Your task to perform on an android device: allow cookies in the chrome app Image 0: 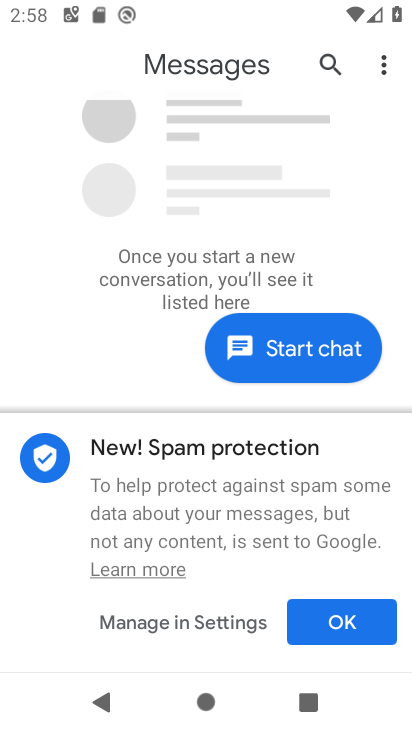
Step 0: press home button
Your task to perform on an android device: allow cookies in the chrome app Image 1: 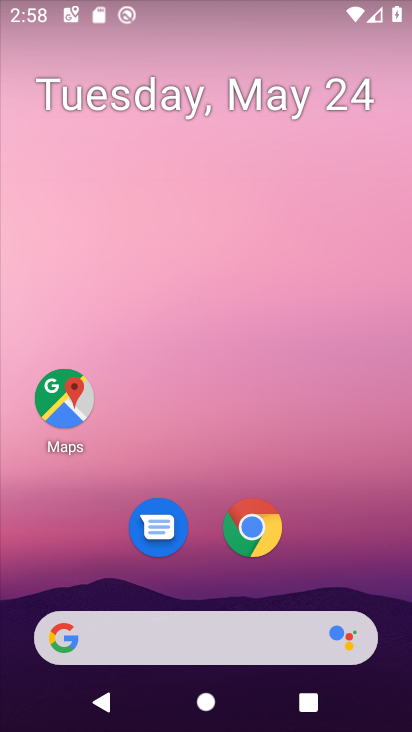
Step 1: click (250, 532)
Your task to perform on an android device: allow cookies in the chrome app Image 2: 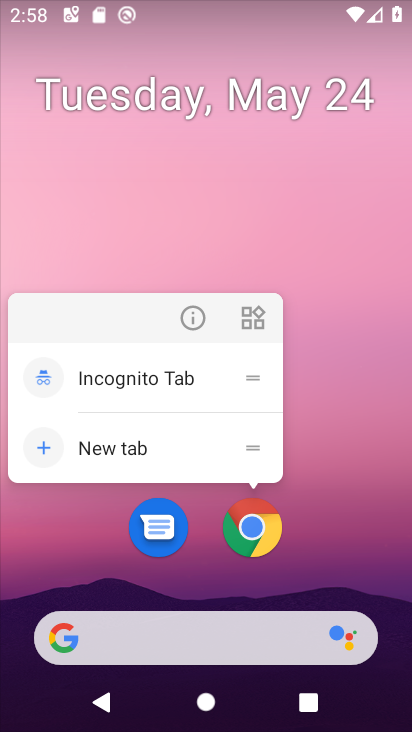
Step 2: click (250, 532)
Your task to perform on an android device: allow cookies in the chrome app Image 3: 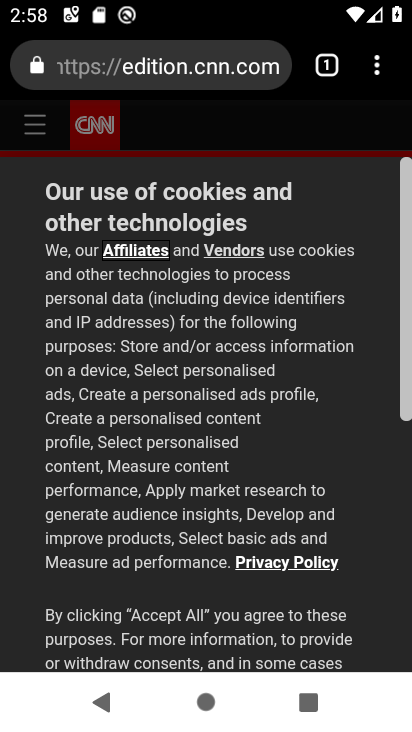
Step 3: click (377, 67)
Your task to perform on an android device: allow cookies in the chrome app Image 4: 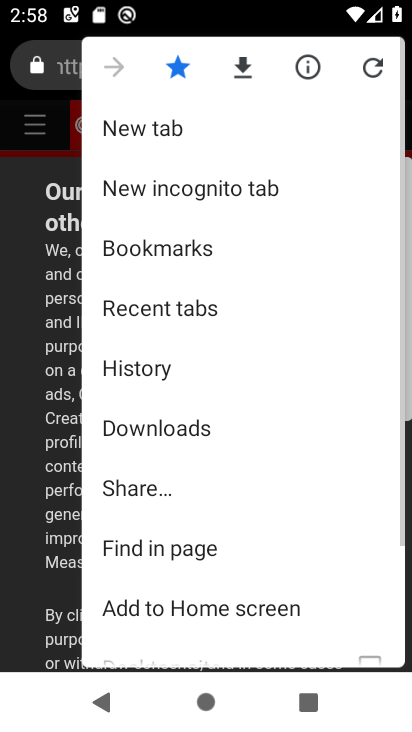
Step 4: drag from (211, 524) to (214, 198)
Your task to perform on an android device: allow cookies in the chrome app Image 5: 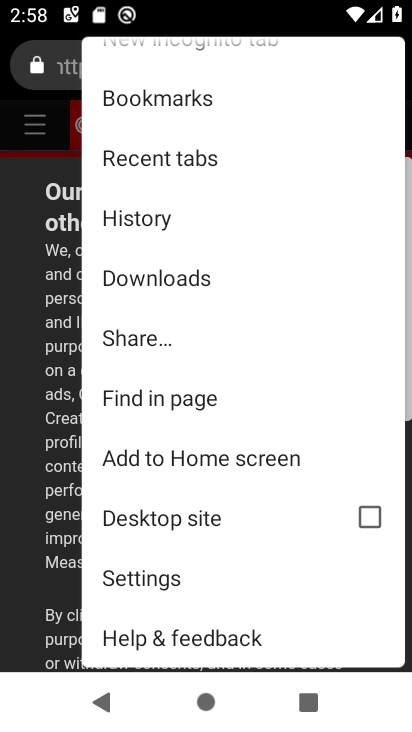
Step 5: click (139, 581)
Your task to perform on an android device: allow cookies in the chrome app Image 6: 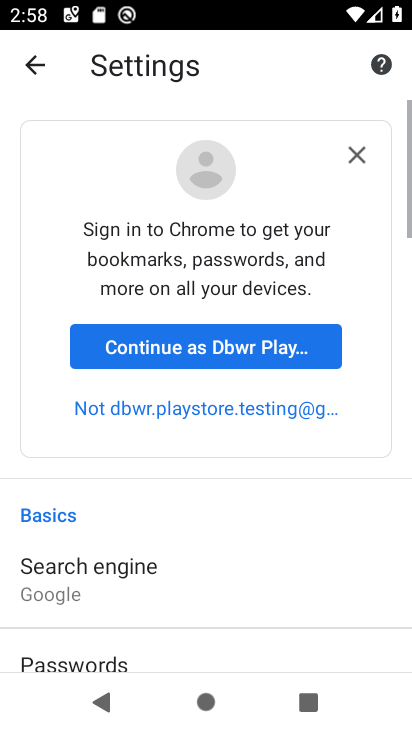
Step 6: drag from (208, 578) to (180, 162)
Your task to perform on an android device: allow cookies in the chrome app Image 7: 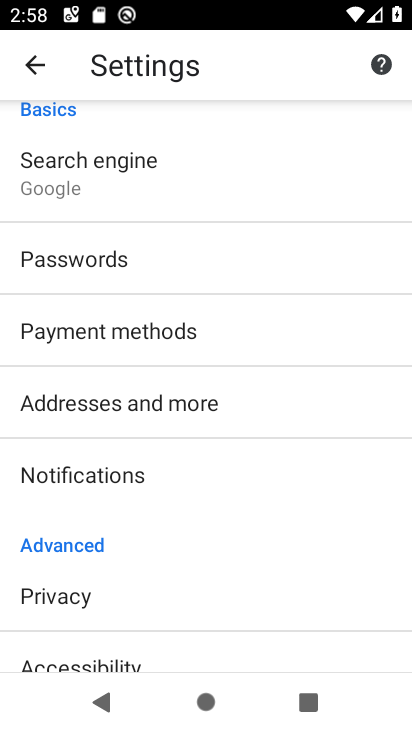
Step 7: drag from (138, 553) to (149, 171)
Your task to perform on an android device: allow cookies in the chrome app Image 8: 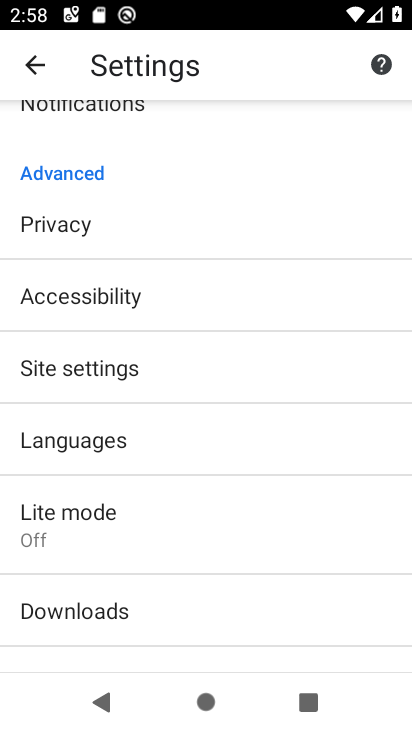
Step 8: click (63, 371)
Your task to perform on an android device: allow cookies in the chrome app Image 9: 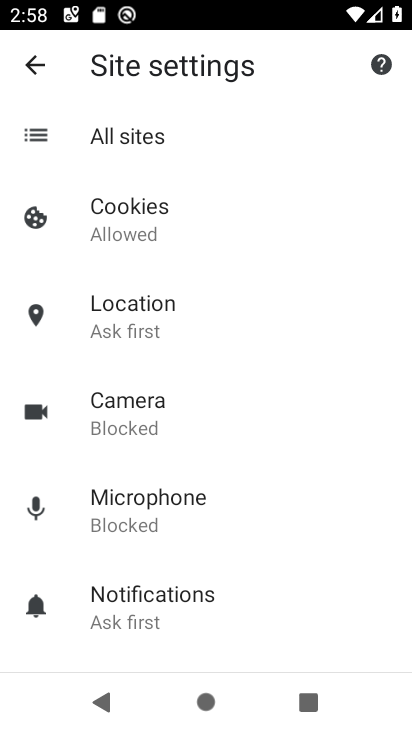
Step 9: click (128, 220)
Your task to perform on an android device: allow cookies in the chrome app Image 10: 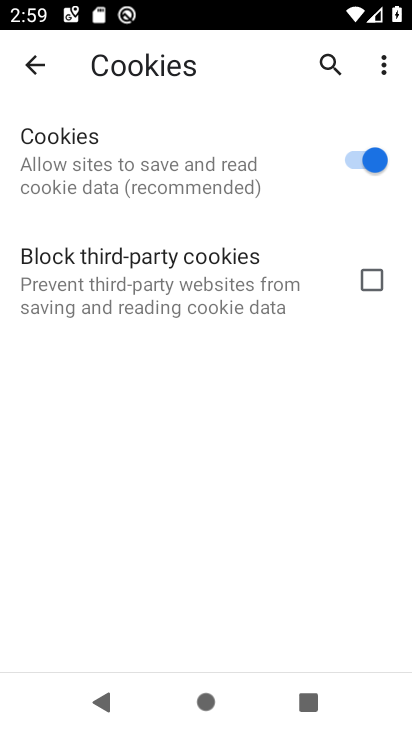
Step 10: task complete